Your task to perform on an android device: Is it going to rain today? Image 0: 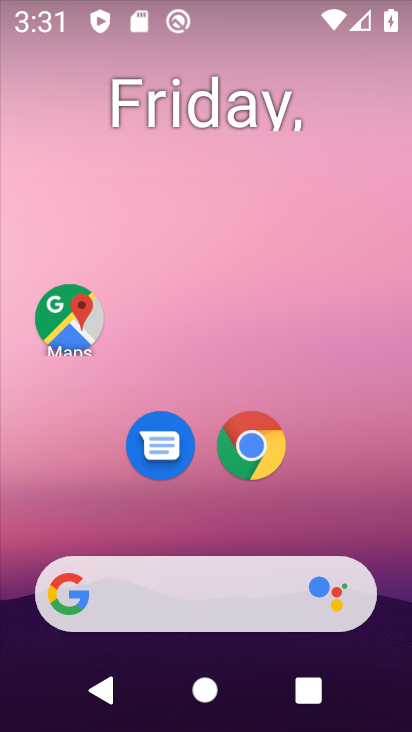
Step 0: drag from (371, 606) to (287, 19)
Your task to perform on an android device: Is it going to rain today? Image 1: 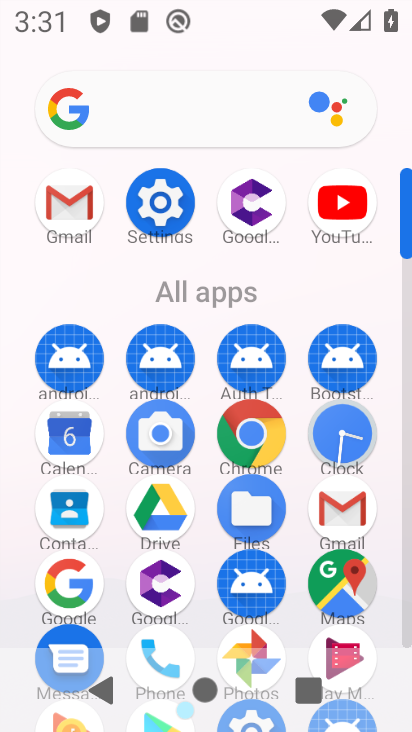
Step 1: drag from (2, 211) to (2, 165)
Your task to perform on an android device: Is it going to rain today? Image 2: 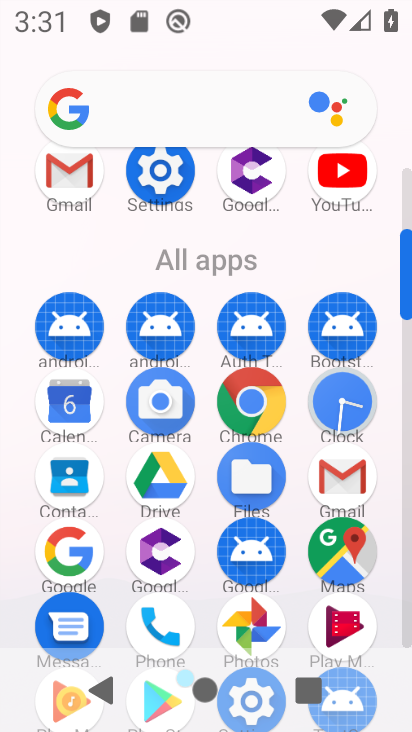
Step 2: drag from (4, 600) to (16, 196)
Your task to perform on an android device: Is it going to rain today? Image 3: 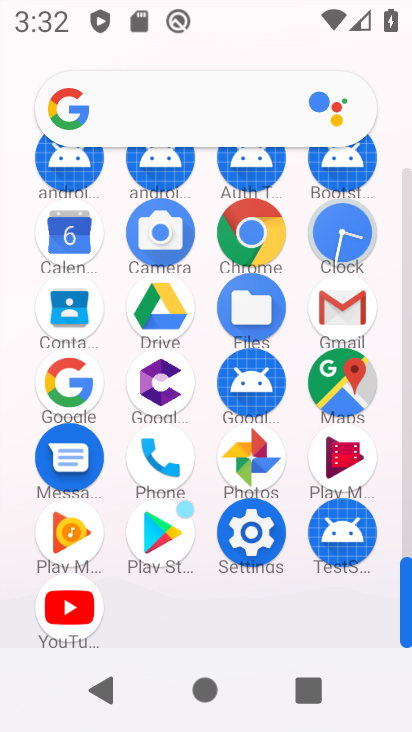
Step 3: click (247, 235)
Your task to perform on an android device: Is it going to rain today? Image 4: 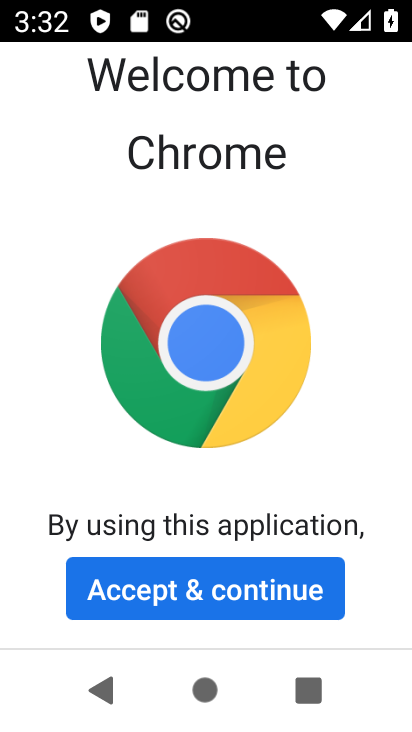
Step 4: click (250, 586)
Your task to perform on an android device: Is it going to rain today? Image 5: 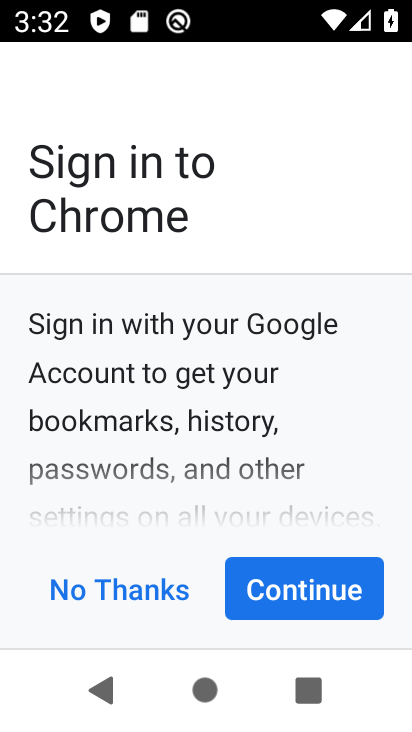
Step 5: click (251, 587)
Your task to perform on an android device: Is it going to rain today? Image 6: 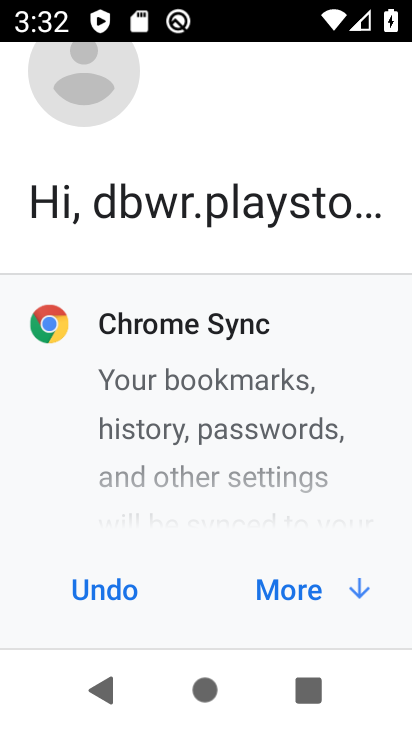
Step 6: click (258, 584)
Your task to perform on an android device: Is it going to rain today? Image 7: 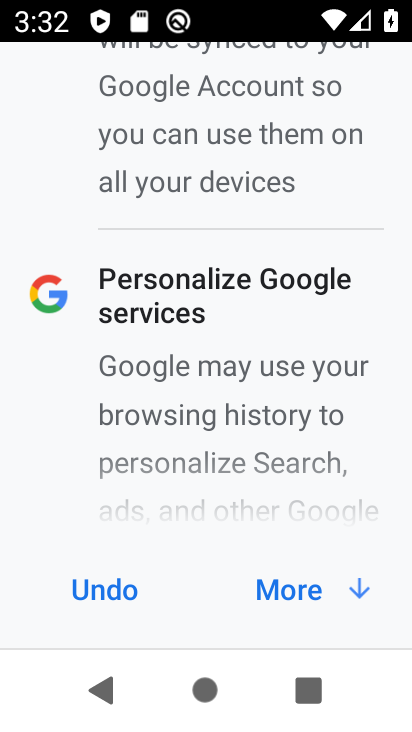
Step 7: click (265, 586)
Your task to perform on an android device: Is it going to rain today? Image 8: 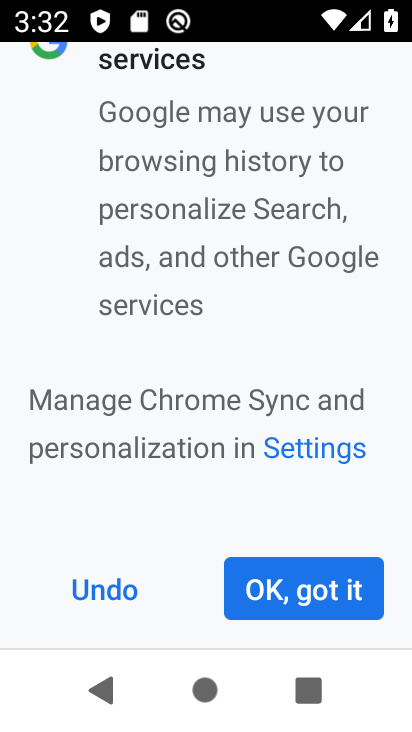
Step 8: click (265, 585)
Your task to perform on an android device: Is it going to rain today? Image 9: 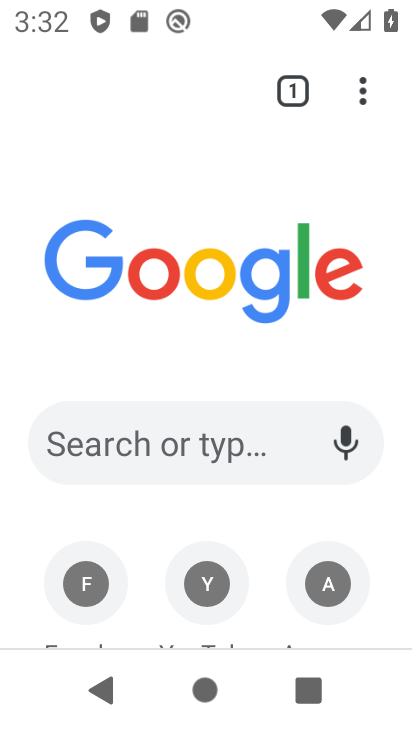
Step 9: click (140, 434)
Your task to perform on an android device: Is it going to rain today? Image 10: 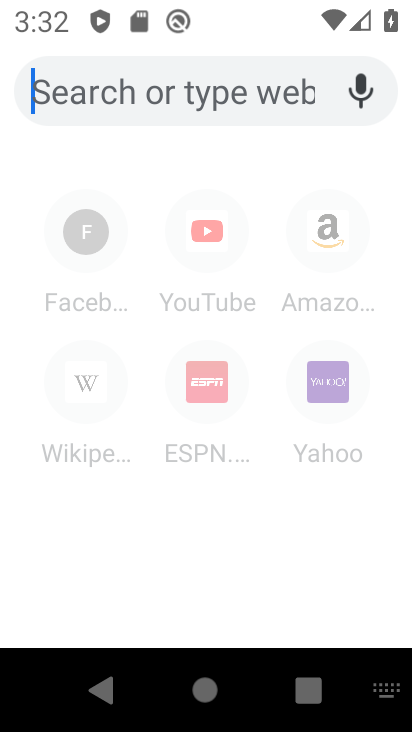
Step 10: type "Is it going to rain today"
Your task to perform on an android device: Is it going to rain today? Image 11: 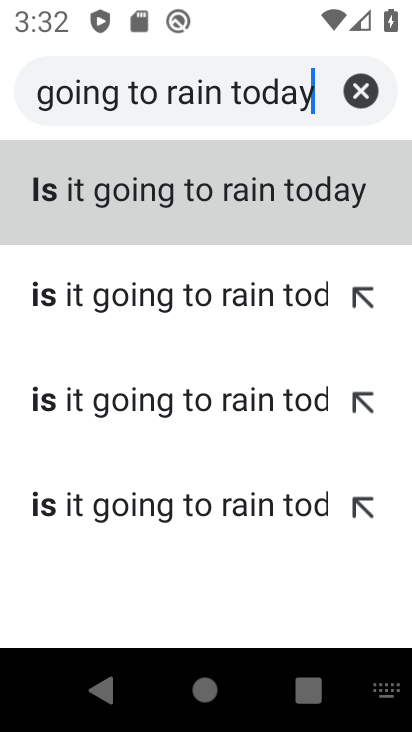
Step 11: click (197, 213)
Your task to perform on an android device: Is it going to rain today? Image 12: 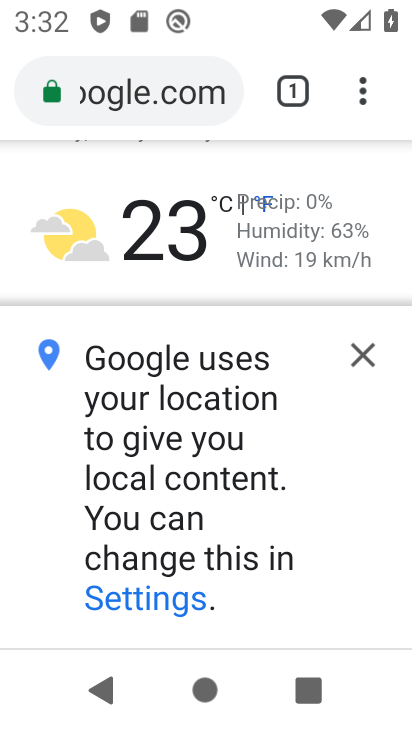
Step 12: click (365, 349)
Your task to perform on an android device: Is it going to rain today? Image 13: 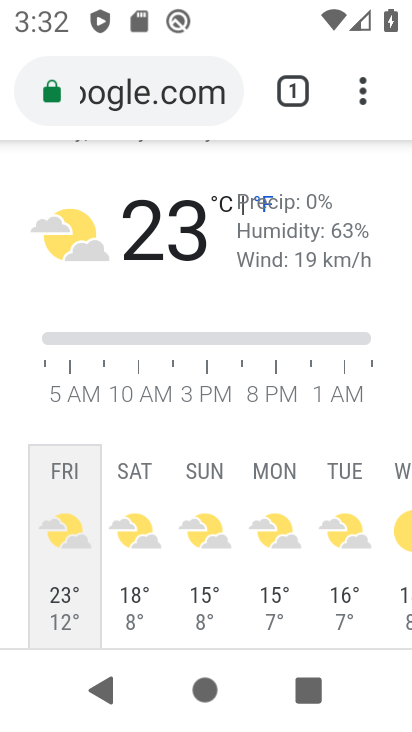
Step 13: task complete